Your task to perform on an android device: Open the phone app and click the voicemail tab. Image 0: 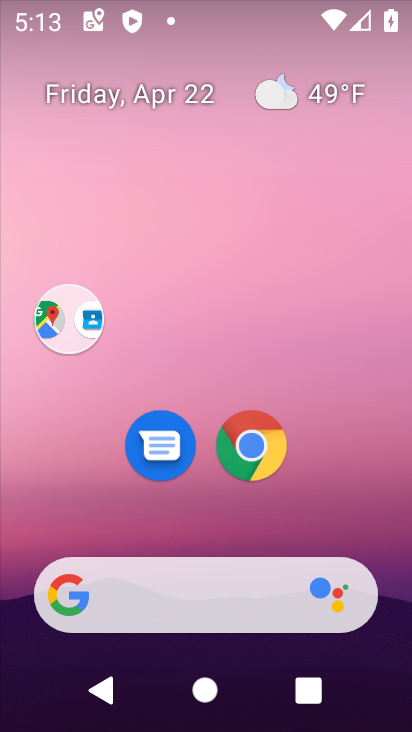
Step 0: drag from (326, 405) to (328, 64)
Your task to perform on an android device: Open the phone app and click the voicemail tab. Image 1: 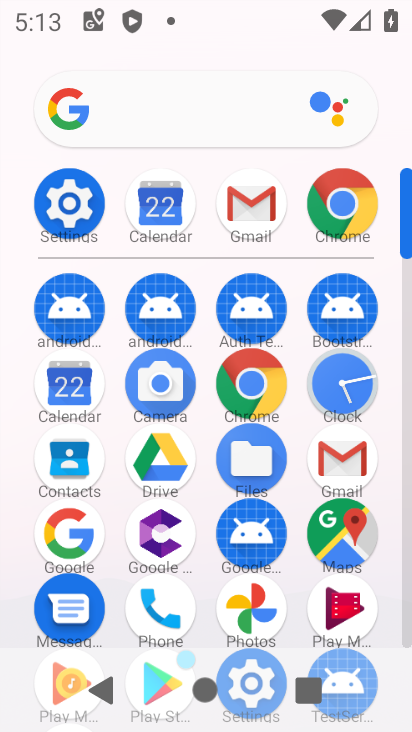
Step 1: click (167, 612)
Your task to perform on an android device: Open the phone app and click the voicemail tab. Image 2: 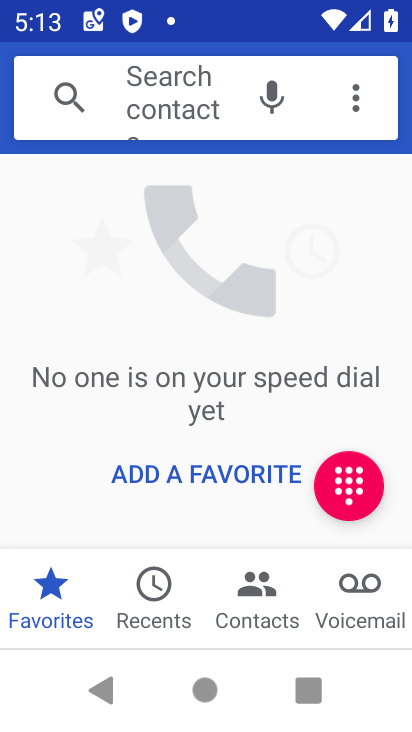
Step 2: click (364, 596)
Your task to perform on an android device: Open the phone app and click the voicemail tab. Image 3: 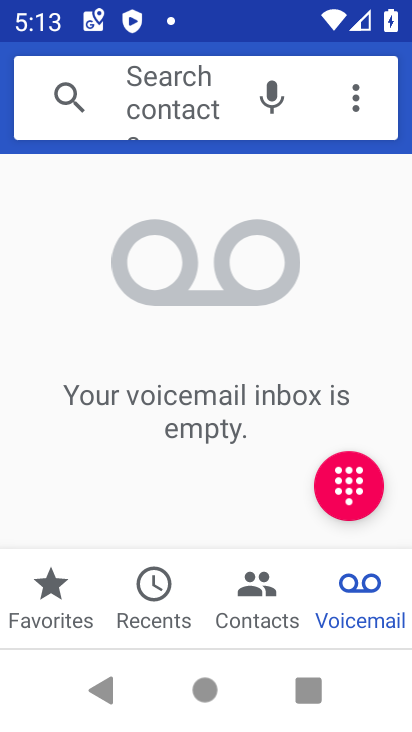
Step 3: task complete